Your task to perform on an android device: turn off airplane mode Image 0: 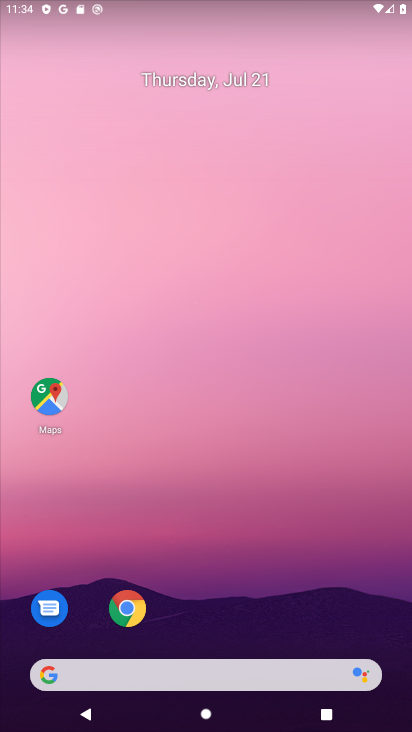
Step 0: press home button
Your task to perform on an android device: turn off airplane mode Image 1: 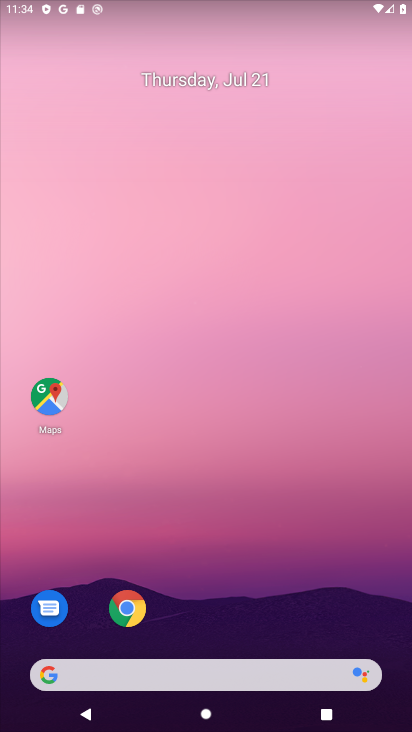
Step 1: task complete